Your task to perform on an android device: turn on the 12-hour format for clock Image 0: 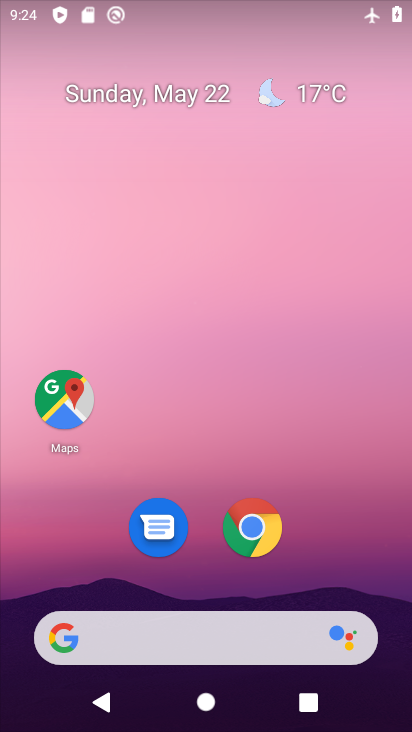
Step 0: drag from (339, 531) to (298, 171)
Your task to perform on an android device: turn on the 12-hour format for clock Image 1: 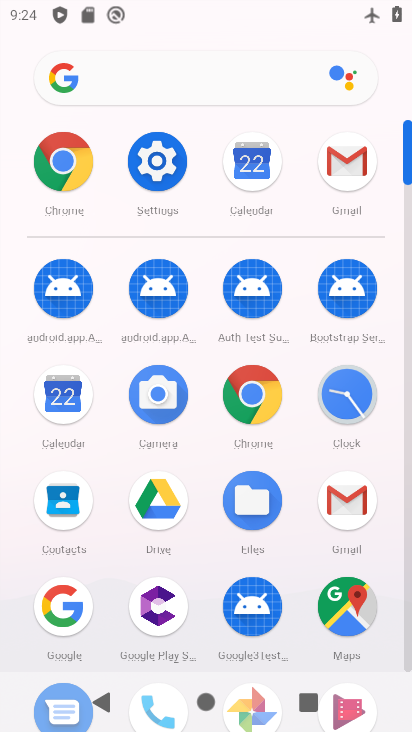
Step 1: click (337, 394)
Your task to perform on an android device: turn on the 12-hour format for clock Image 2: 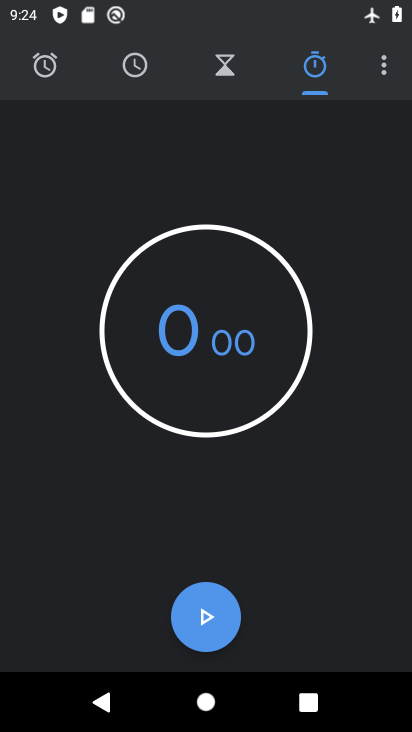
Step 2: click (383, 72)
Your task to perform on an android device: turn on the 12-hour format for clock Image 3: 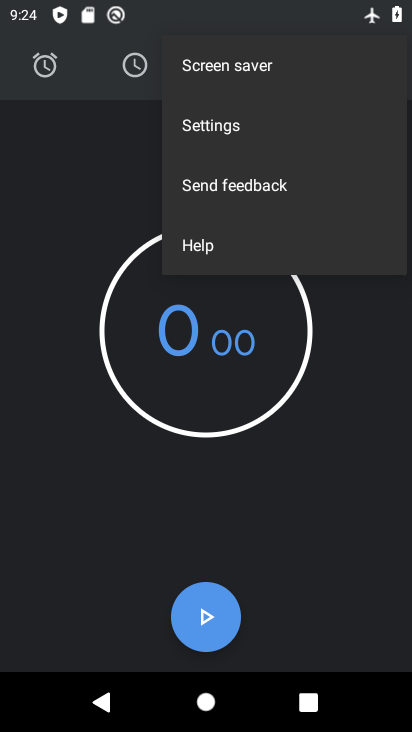
Step 3: click (224, 117)
Your task to perform on an android device: turn on the 12-hour format for clock Image 4: 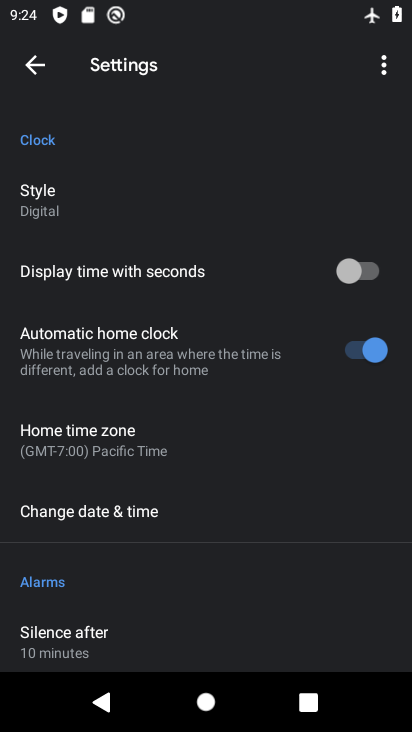
Step 4: click (109, 512)
Your task to perform on an android device: turn on the 12-hour format for clock Image 5: 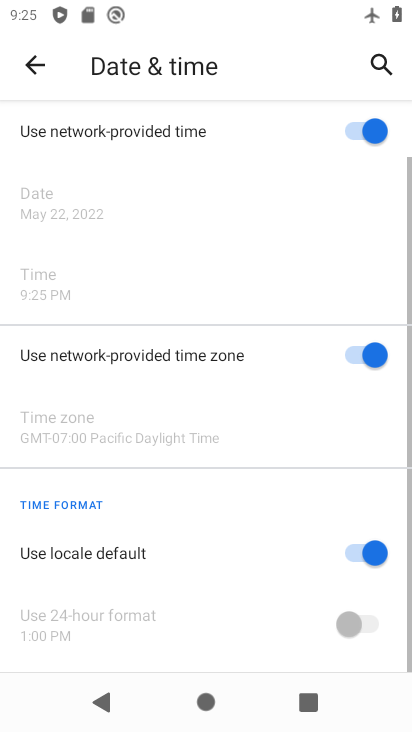
Step 5: task complete